Your task to perform on an android device: see tabs open on other devices in the chrome app Image 0: 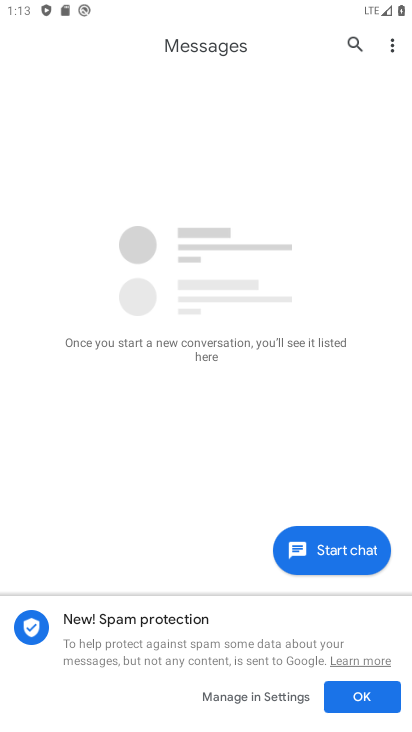
Step 0: press home button
Your task to perform on an android device: see tabs open on other devices in the chrome app Image 1: 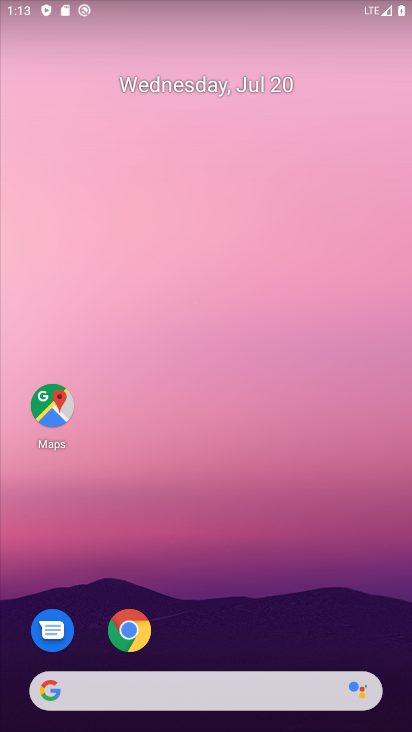
Step 1: drag from (311, 612) to (248, 6)
Your task to perform on an android device: see tabs open on other devices in the chrome app Image 2: 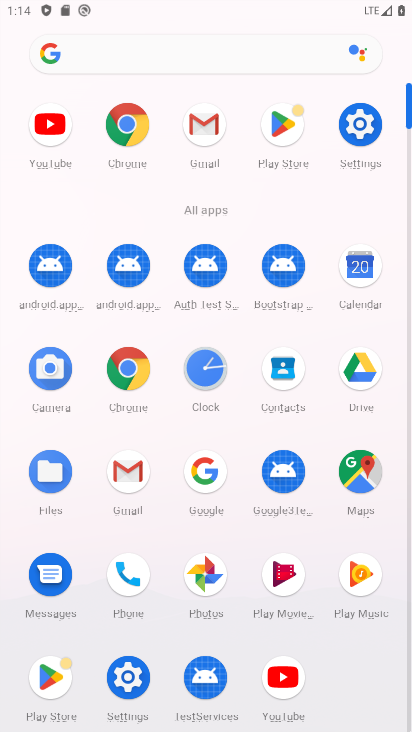
Step 2: click (124, 122)
Your task to perform on an android device: see tabs open on other devices in the chrome app Image 3: 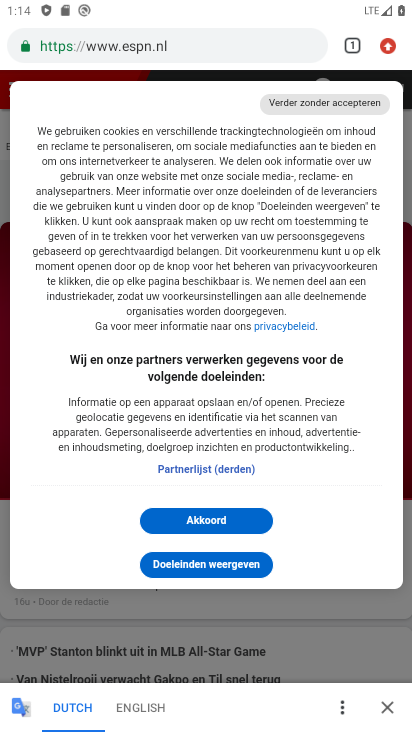
Step 3: task complete